Your task to perform on an android device: turn off airplane mode Image 0: 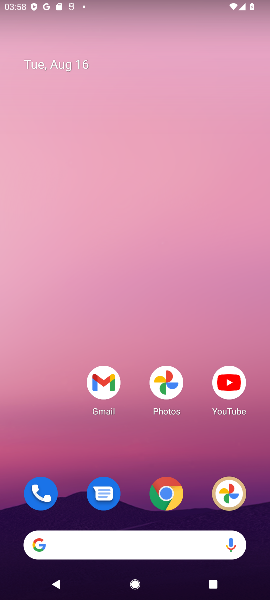
Step 0: press home button
Your task to perform on an android device: turn off airplane mode Image 1: 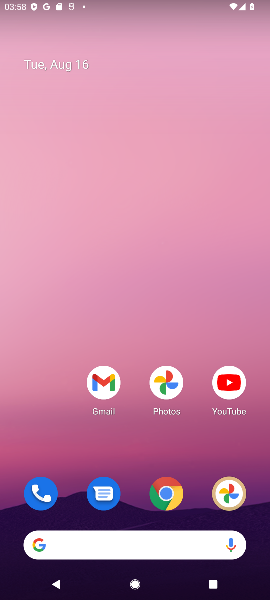
Step 1: drag from (68, 477) to (65, 134)
Your task to perform on an android device: turn off airplane mode Image 2: 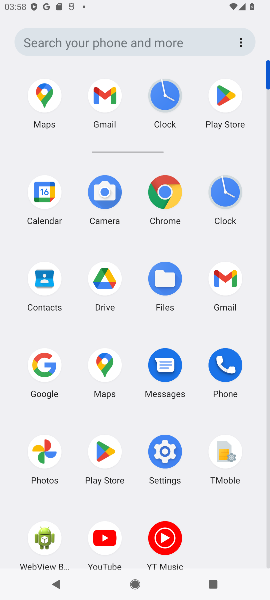
Step 2: click (160, 450)
Your task to perform on an android device: turn off airplane mode Image 3: 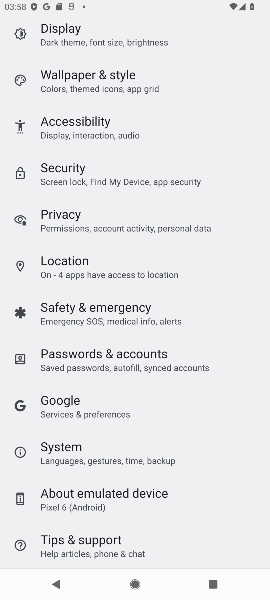
Step 3: drag from (216, 459) to (241, 356)
Your task to perform on an android device: turn off airplane mode Image 4: 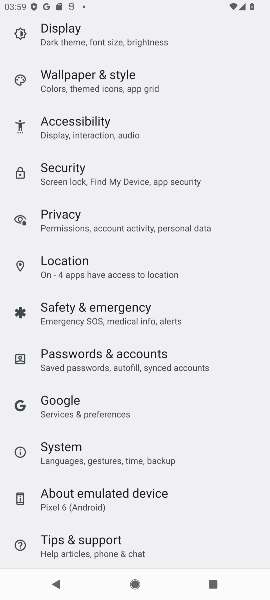
Step 4: drag from (233, 245) to (243, 349)
Your task to perform on an android device: turn off airplane mode Image 5: 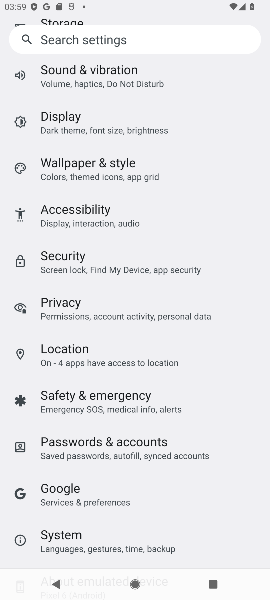
Step 5: drag from (235, 164) to (239, 287)
Your task to perform on an android device: turn off airplane mode Image 6: 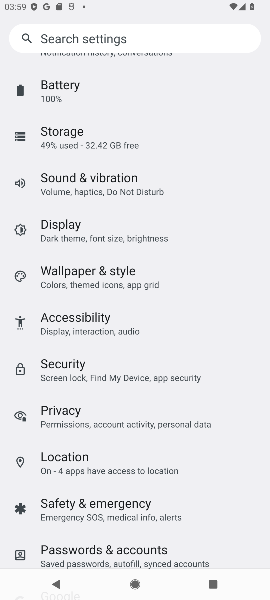
Step 6: drag from (238, 109) to (231, 234)
Your task to perform on an android device: turn off airplane mode Image 7: 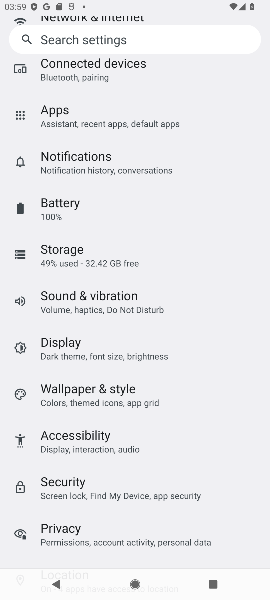
Step 7: drag from (225, 78) to (230, 223)
Your task to perform on an android device: turn off airplane mode Image 8: 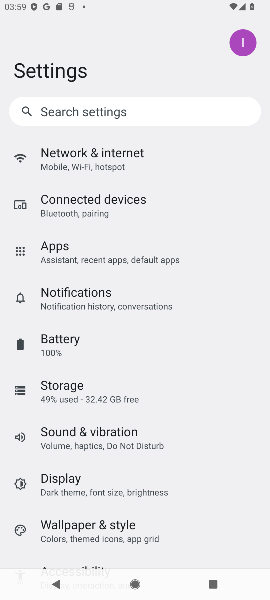
Step 8: drag from (192, 42) to (206, 238)
Your task to perform on an android device: turn off airplane mode Image 9: 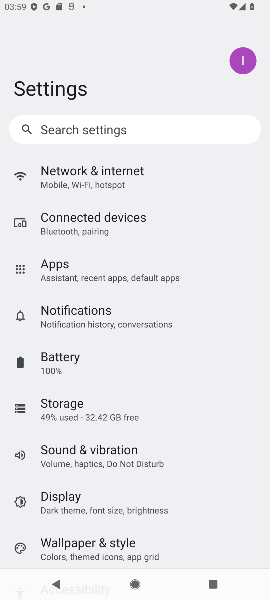
Step 9: click (137, 171)
Your task to perform on an android device: turn off airplane mode Image 10: 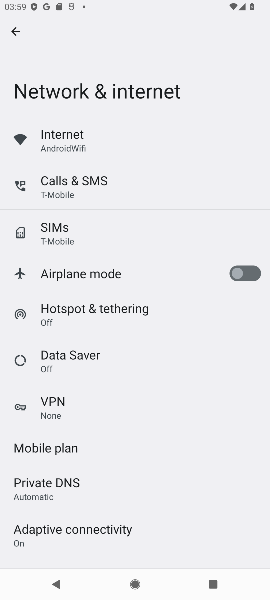
Step 10: task complete